Your task to perform on an android device: toggle translation in the chrome app Image 0: 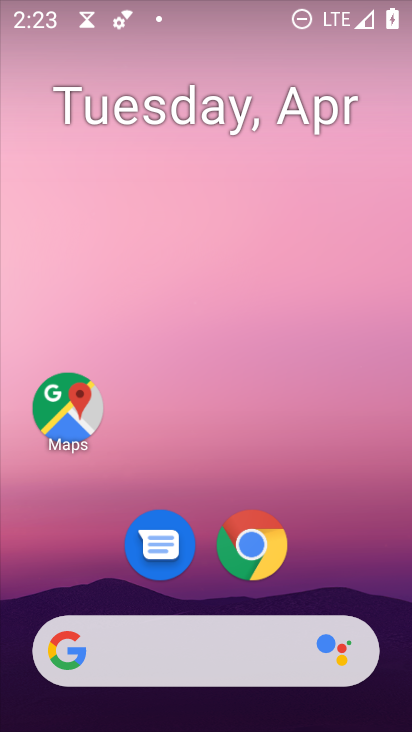
Step 0: drag from (388, 546) to (327, 130)
Your task to perform on an android device: toggle translation in the chrome app Image 1: 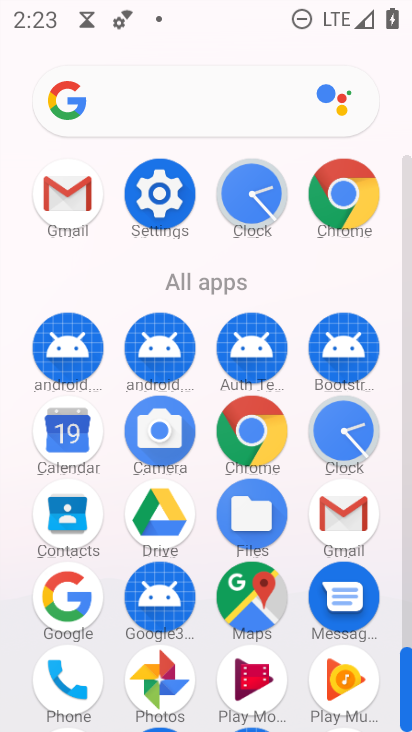
Step 1: click (348, 210)
Your task to perform on an android device: toggle translation in the chrome app Image 2: 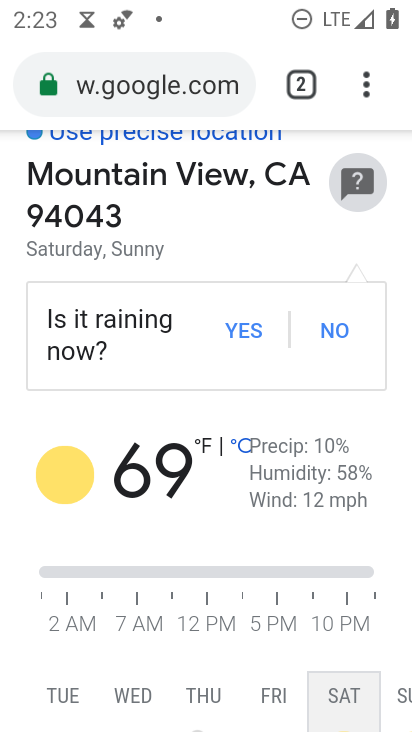
Step 2: click (364, 79)
Your task to perform on an android device: toggle translation in the chrome app Image 3: 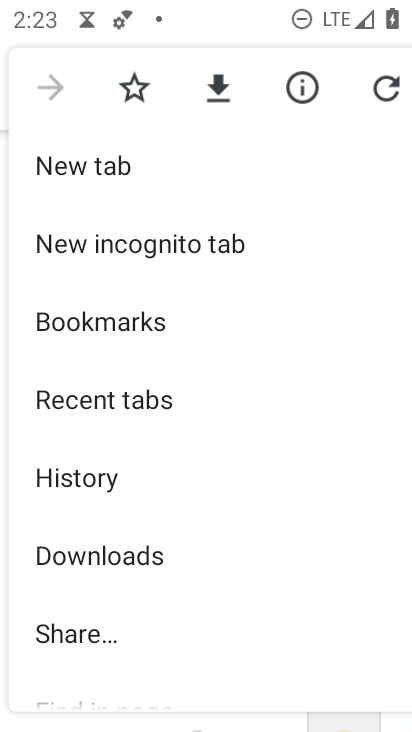
Step 3: drag from (240, 590) to (229, 199)
Your task to perform on an android device: toggle translation in the chrome app Image 4: 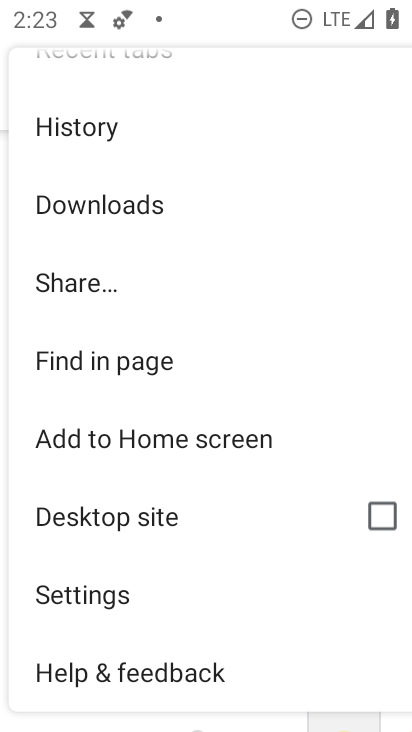
Step 4: click (271, 587)
Your task to perform on an android device: toggle translation in the chrome app Image 5: 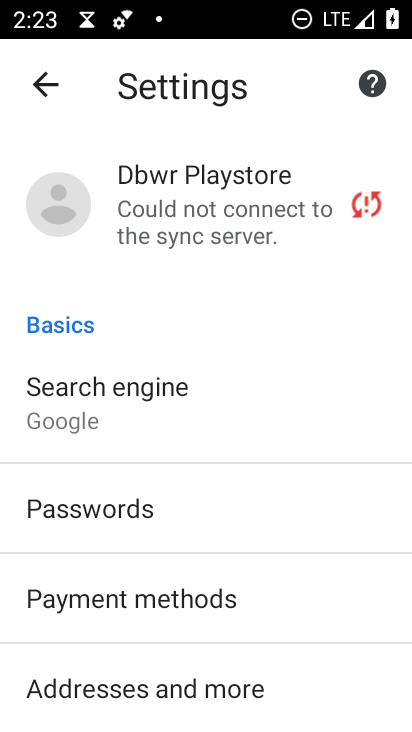
Step 5: drag from (271, 587) to (248, 266)
Your task to perform on an android device: toggle translation in the chrome app Image 6: 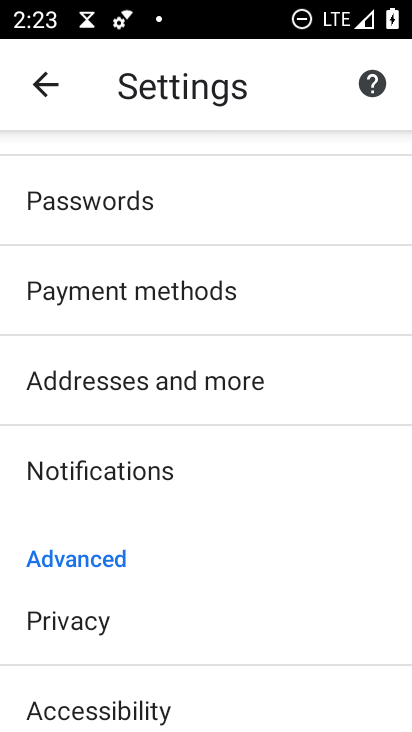
Step 6: drag from (288, 623) to (250, 298)
Your task to perform on an android device: toggle translation in the chrome app Image 7: 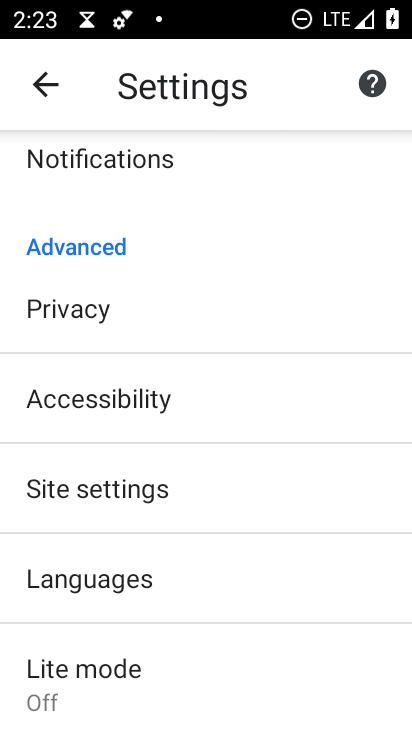
Step 7: click (260, 571)
Your task to perform on an android device: toggle translation in the chrome app Image 8: 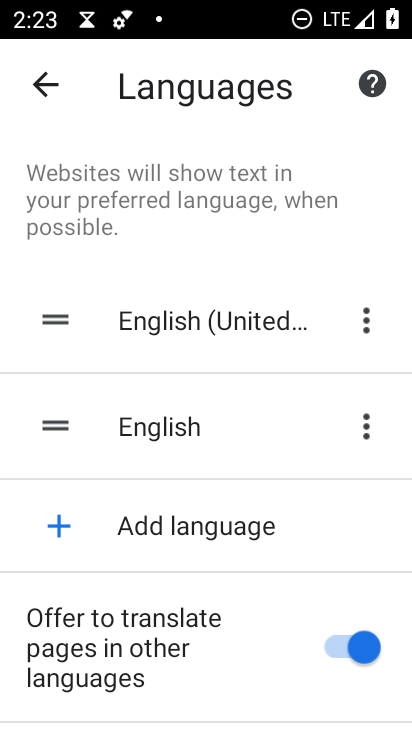
Step 8: click (349, 639)
Your task to perform on an android device: toggle translation in the chrome app Image 9: 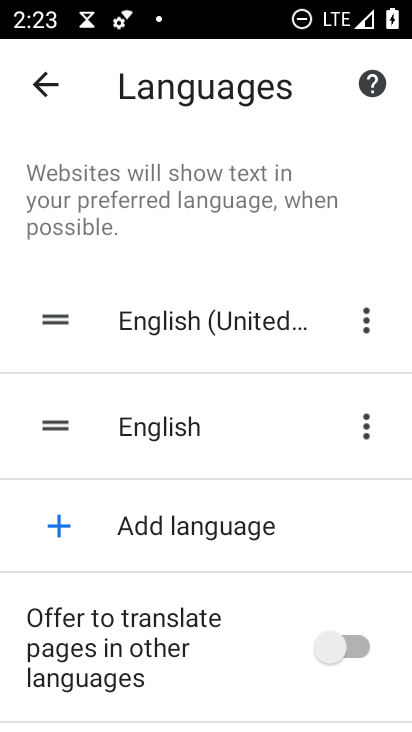
Step 9: task complete